Your task to perform on an android device: check android version Image 0: 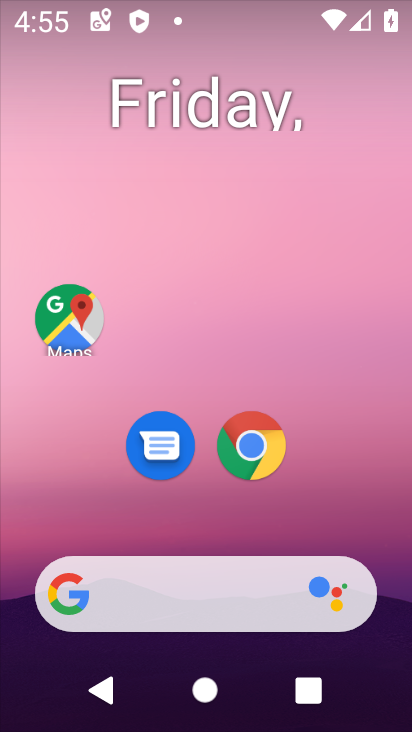
Step 0: drag from (334, 511) to (322, 121)
Your task to perform on an android device: check android version Image 1: 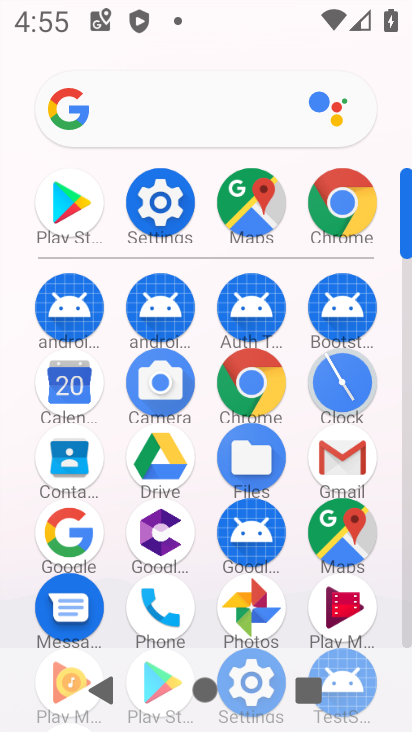
Step 1: click (186, 212)
Your task to perform on an android device: check android version Image 2: 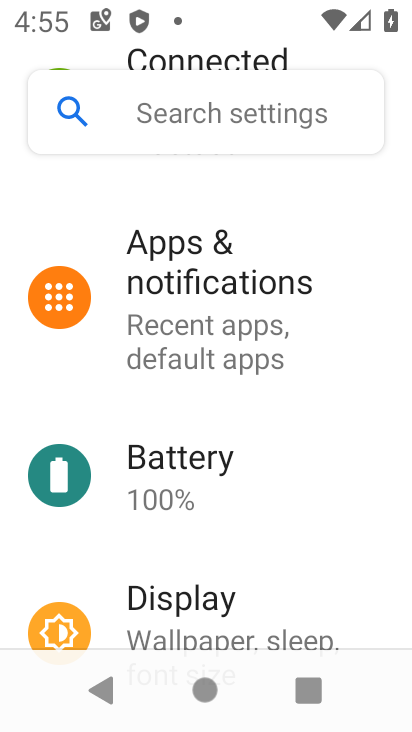
Step 2: drag from (212, 603) to (273, 134)
Your task to perform on an android device: check android version Image 3: 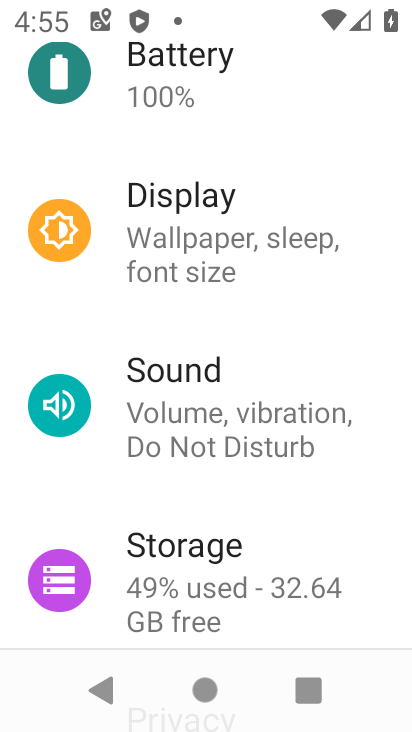
Step 3: drag from (264, 585) to (252, 205)
Your task to perform on an android device: check android version Image 4: 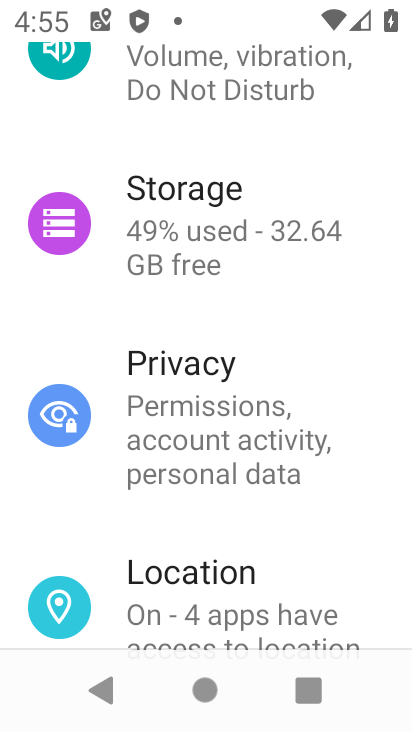
Step 4: drag from (241, 571) to (260, 68)
Your task to perform on an android device: check android version Image 5: 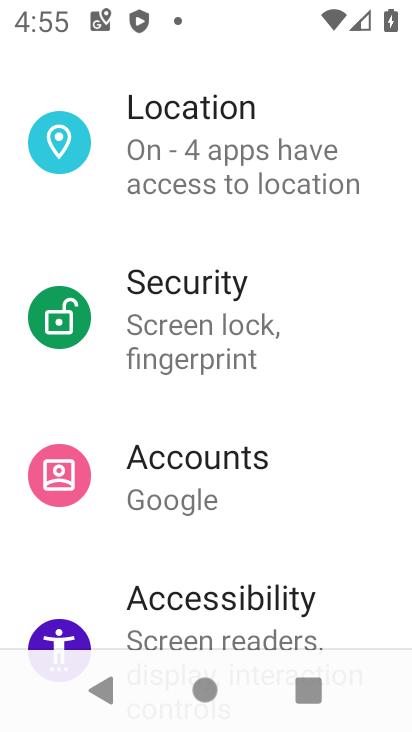
Step 5: drag from (232, 597) to (266, 310)
Your task to perform on an android device: check android version Image 6: 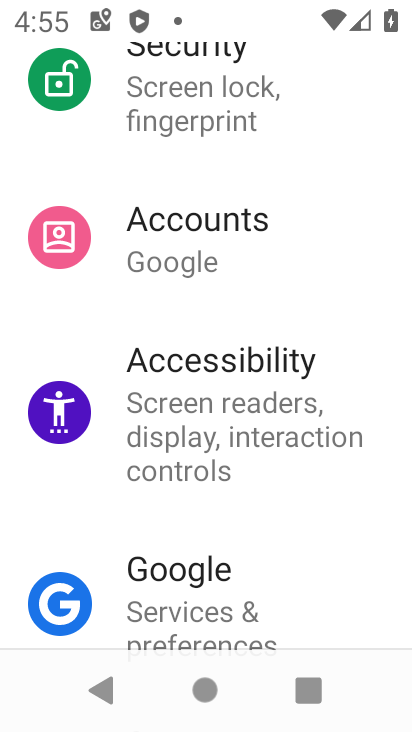
Step 6: drag from (257, 616) to (271, 157)
Your task to perform on an android device: check android version Image 7: 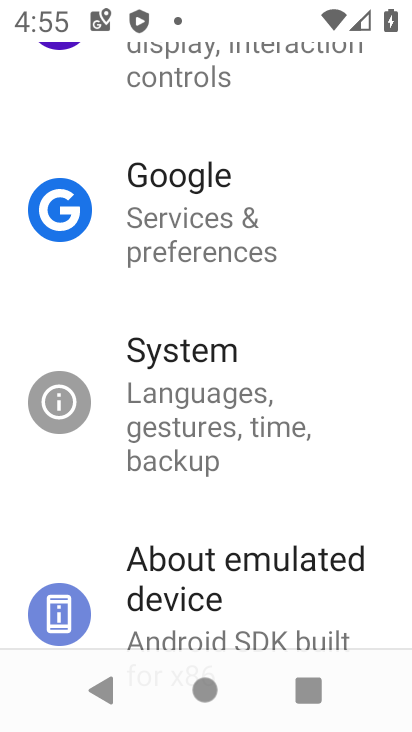
Step 7: click (277, 587)
Your task to perform on an android device: check android version Image 8: 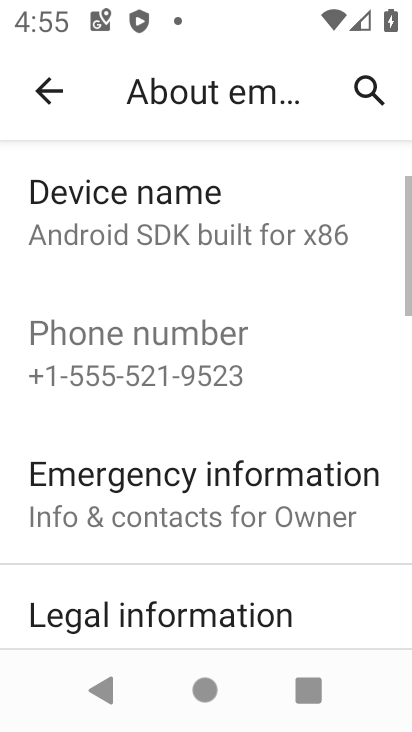
Step 8: drag from (277, 573) to (274, 253)
Your task to perform on an android device: check android version Image 9: 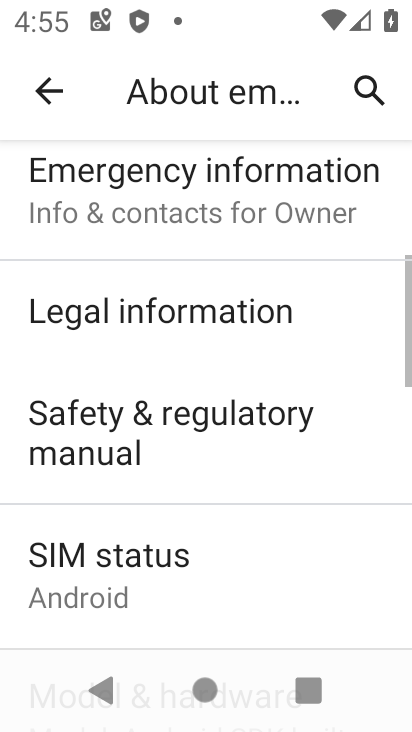
Step 9: drag from (266, 573) to (263, 153)
Your task to perform on an android device: check android version Image 10: 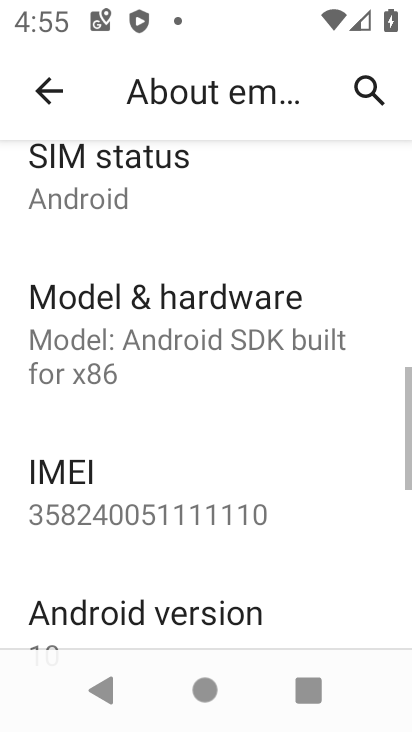
Step 10: click (205, 601)
Your task to perform on an android device: check android version Image 11: 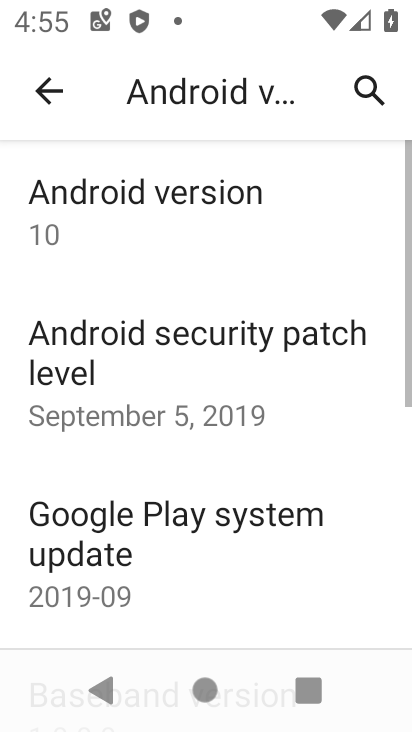
Step 11: task complete